Your task to perform on an android device: find which apps use the phone's location Image 0: 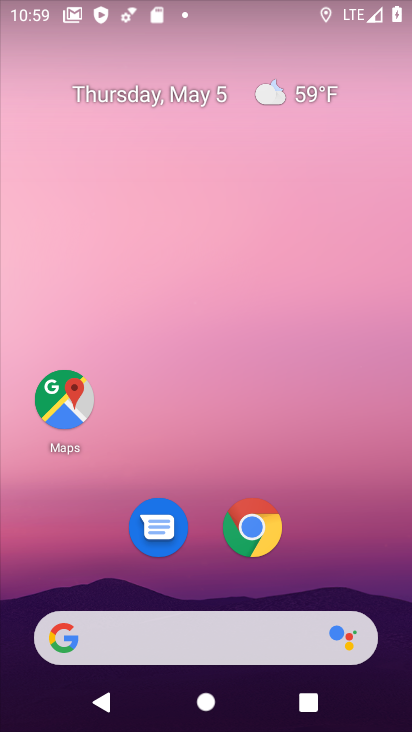
Step 0: drag from (215, 583) to (155, 2)
Your task to perform on an android device: find which apps use the phone's location Image 1: 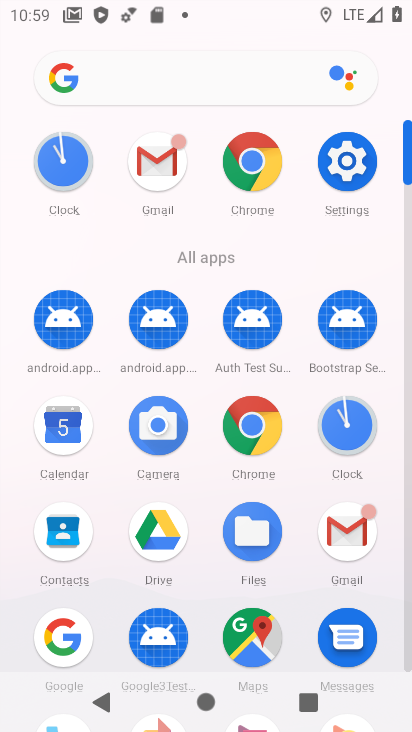
Step 1: click (339, 190)
Your task to perform on an android device: find which apps use the phone's location Image 2: 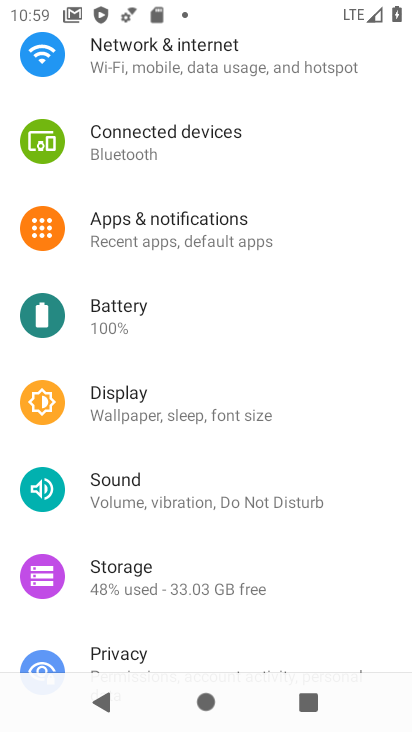
Step 2: drag from (153, 620) to (216, 254)
Your task to perform on an android device: find which apps use the phone's location Image 3: 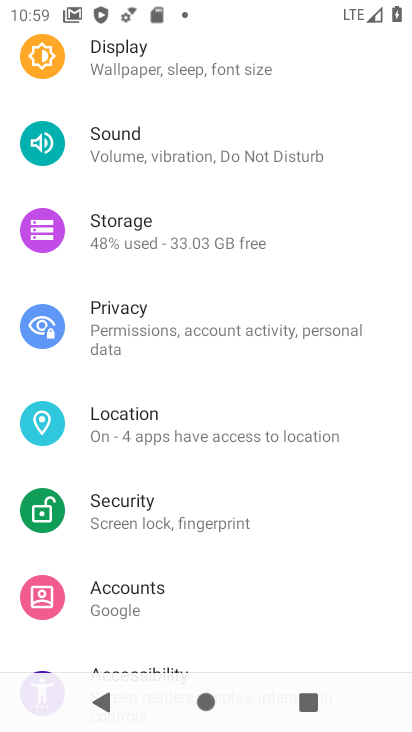
Step 3: click (146, 445)
Your task to perform on an android device: find which apps use the phone's location Image 4: 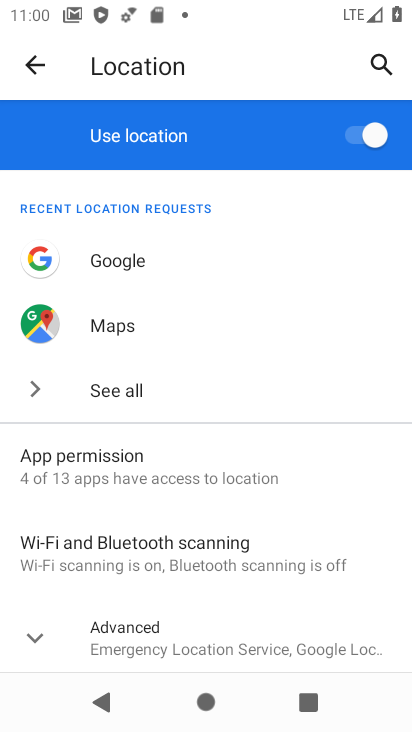
Step 4: click (126, 478)
Your task to perform on an android device: find which apps use the phone's location Image 5: 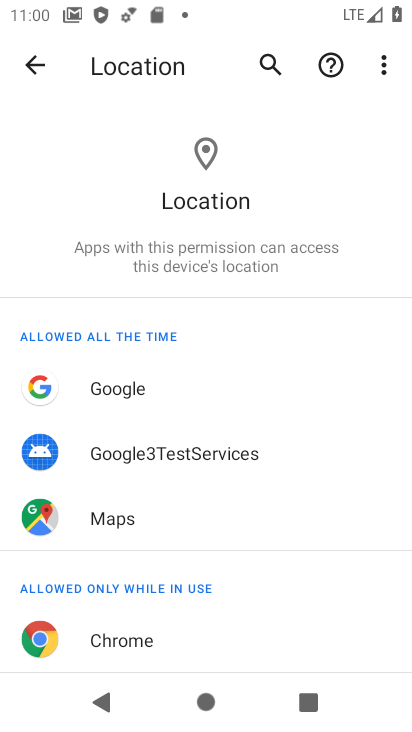
Step 5: task complete